Your task to perform on an android device: Open privacy settings Image 0: 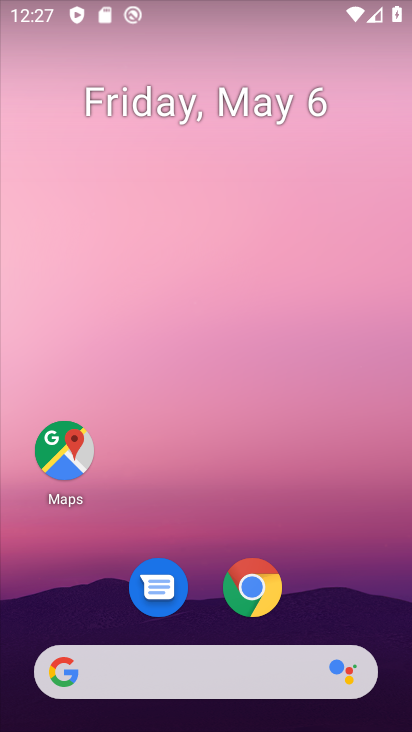
Step 0: drag from (135, 482) to (236, 127)
Your task to perform on an android device: Open privacy settings Image 1: 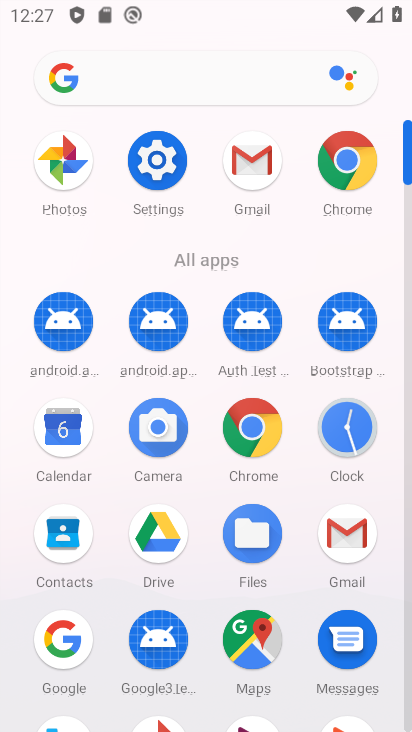
Step 1: click (241, 647)
Your task to perform on an android device: Open privacy settings Image 2: 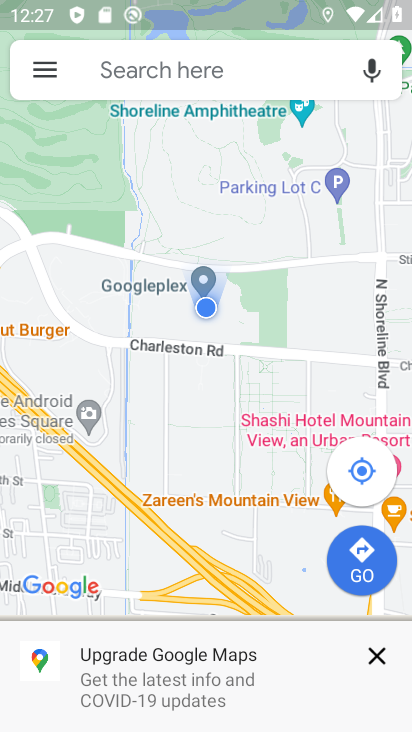
Step 2: press home button
Your task to perform on an android device: Open privacy settings Image 3: 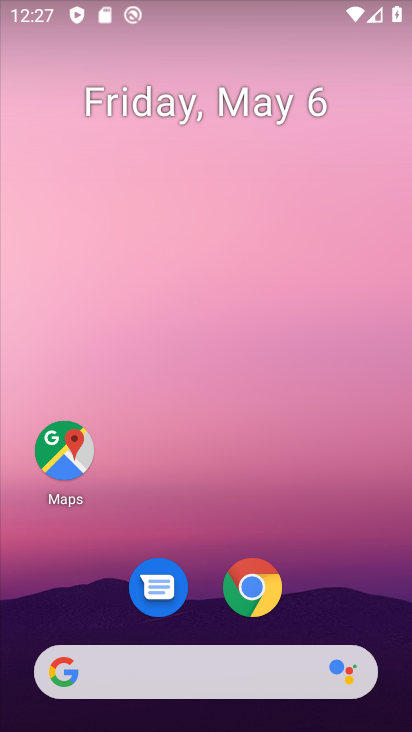
Step 3: drag from (236, 635) to (396, 80)
Your task to perform on an android device: Open privacy settings Image 4: 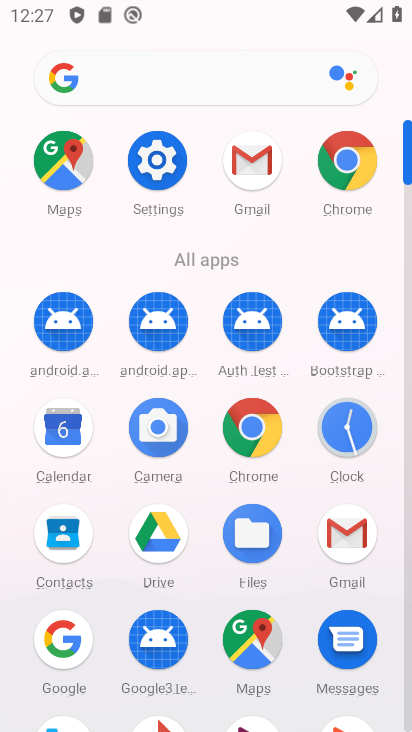
Step 4: click (153, 161)
Your task to perform on an android device: Open privacy settings Image 5: 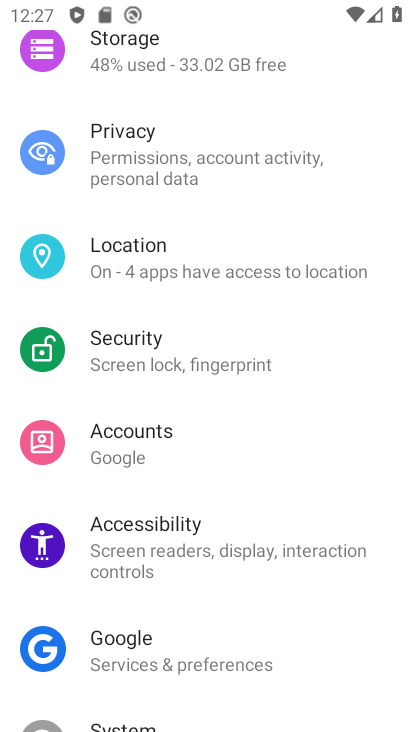
Step 5: drag from (209, 420) to (160, 610)
Your task to perform on an android device: Open privacy settings Image 6: 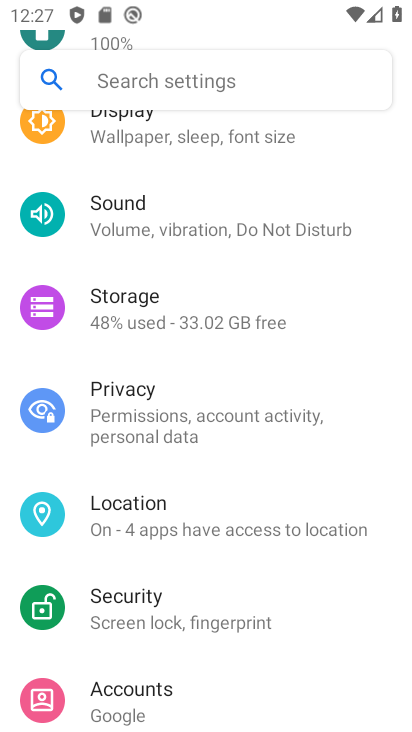
Step 6: click (221, 414)
Your task to perform on an android device: Open privacy settings Image 7: 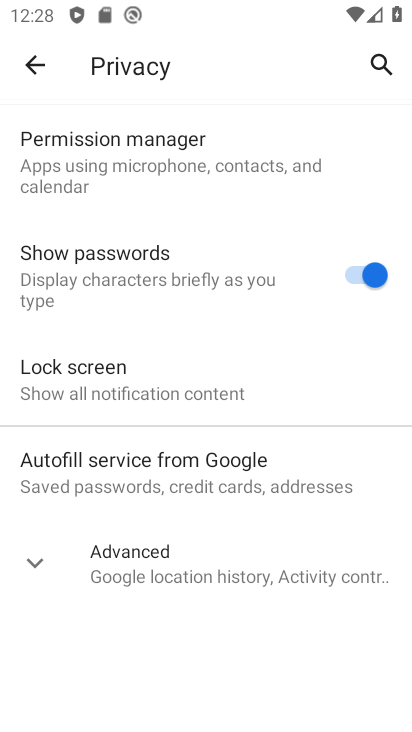
Step 7: click (199, 567)
Your task to perform on an android device: Open privacy settings Image 8: 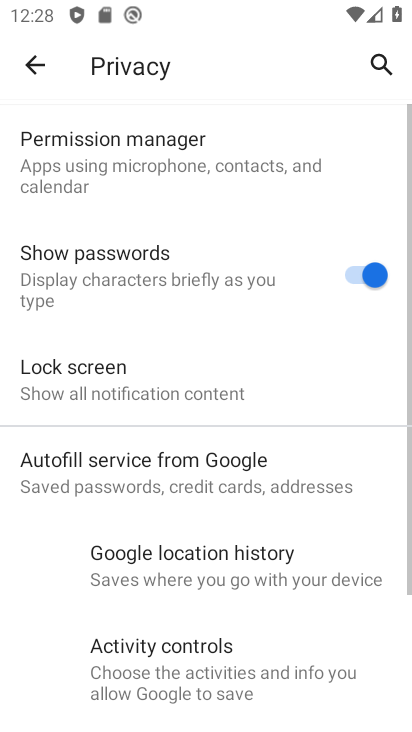
Step 8: task complete